Your task to perform on an android device: open the mobile data screen to see how much data has been used Image 0: 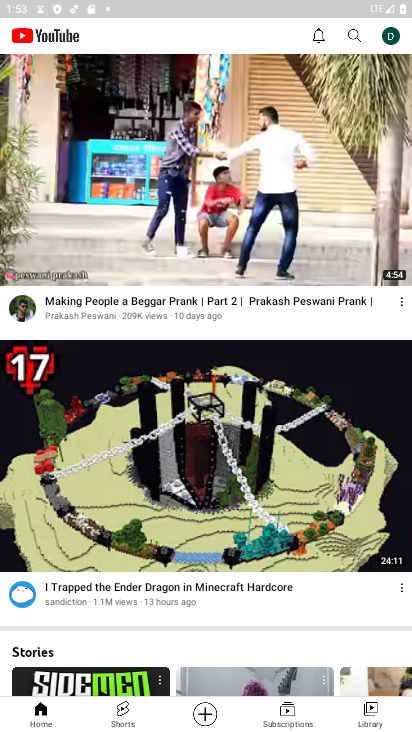
Step 0: press home button
Your task to perform on an android device: open the mobile data screen to see how much data has been used Image 1: 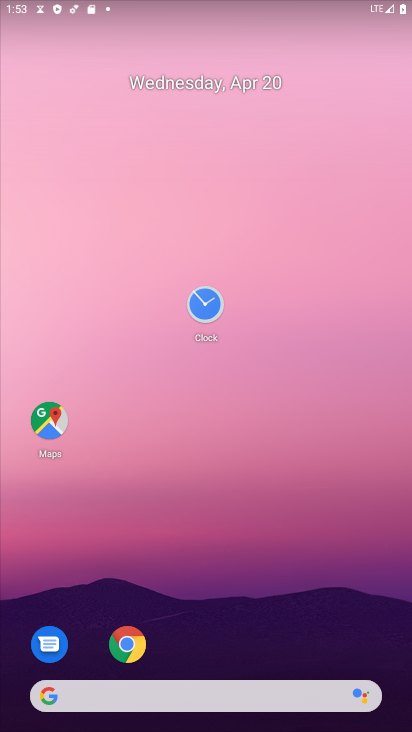
Step 1: drag from (313, 629) to (284, 9)
Your task to perform on an android device: open the mobile data screen to see how much data has been used Image 2: 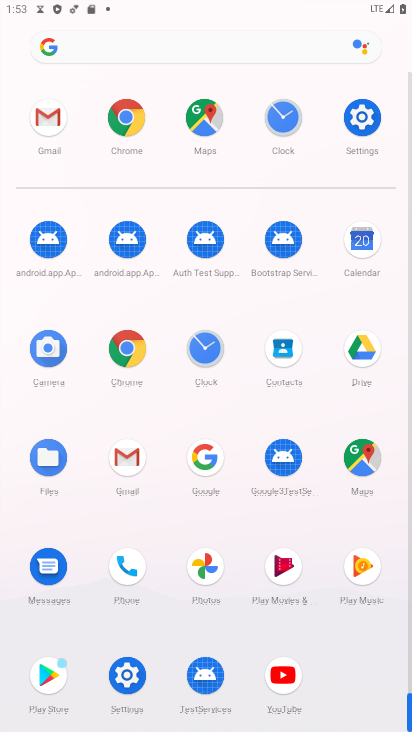
Step 2: click (136, 678)
Your task to perform on an android device: open the mobile data screen to see how much data has been used Image 3: 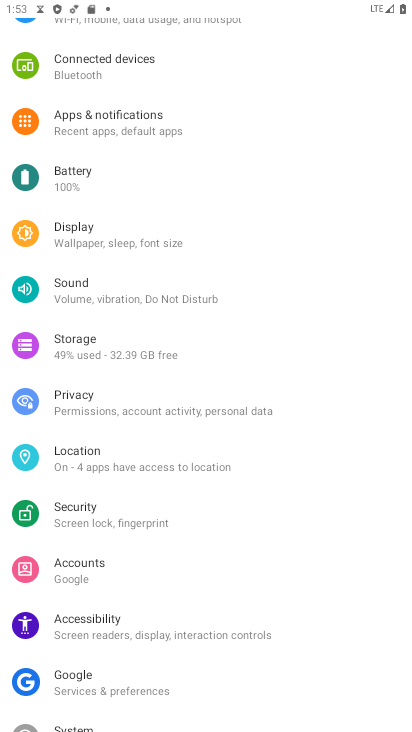
Step 3: drag from (209, 128) to (219, 518)
Your task to perform on an android device: open the mobile data screen to see how much data has been used Image 4: 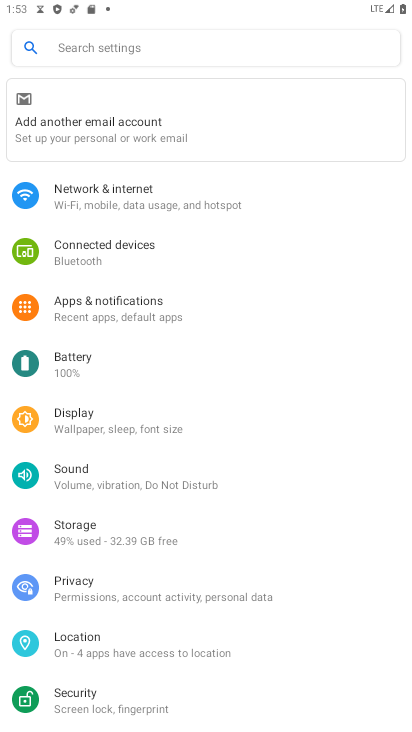
Step 4: click (167, 215)
Your task to perform on an android device: open the mobile data screen to see how much data has been used Image 5: 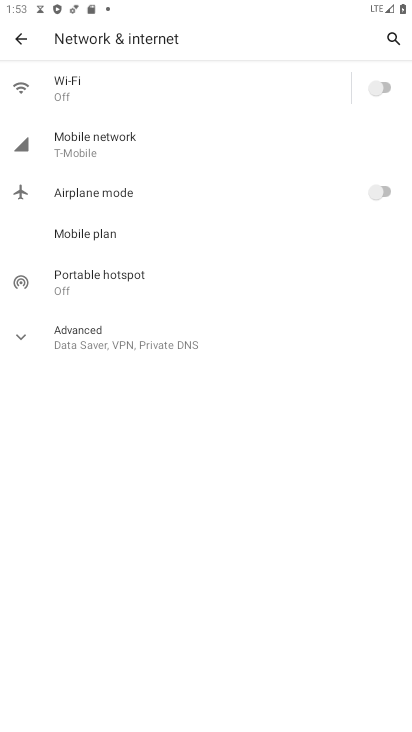
Step 5: click (163, 141)
Your task to perform on an android device: open the mobile data screen to see how much data has been used Image 6: 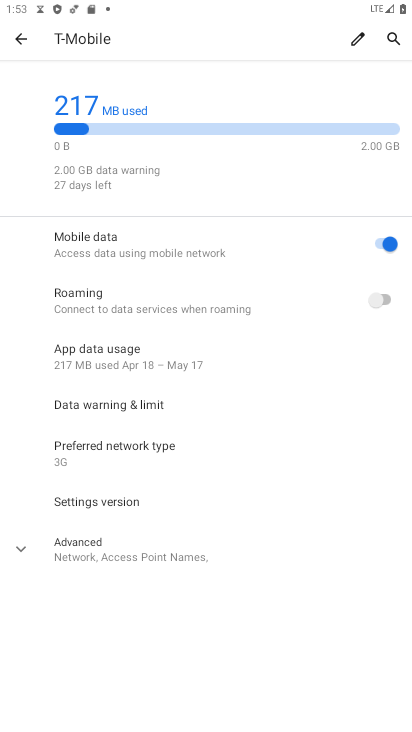
Step 6: click (119, 245)
Your task to perform on an android device: open the mobile data screen to see how much data has been used Image 7: 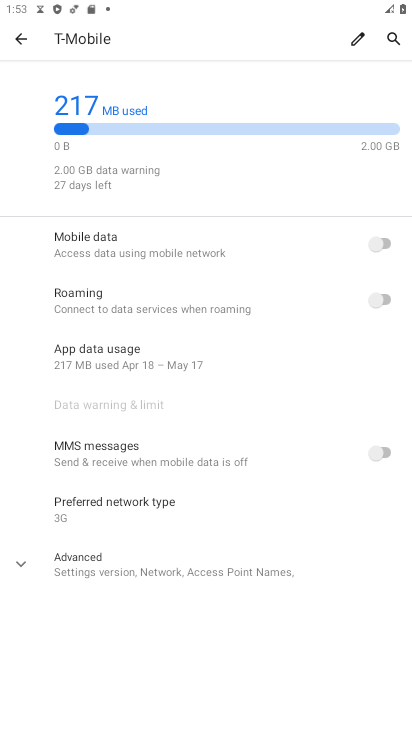
Step 7: click (125, 247)
Your task to perform on an android device: open the mobile data screen to see how much data has been used Image 8: 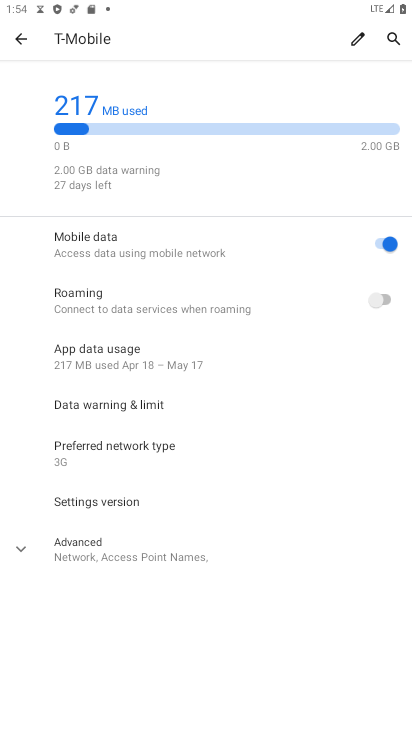
Step 8: click (152, 363)
Your task to perform on an android device: open the mobile data screen to see how much data has been used Image 9: 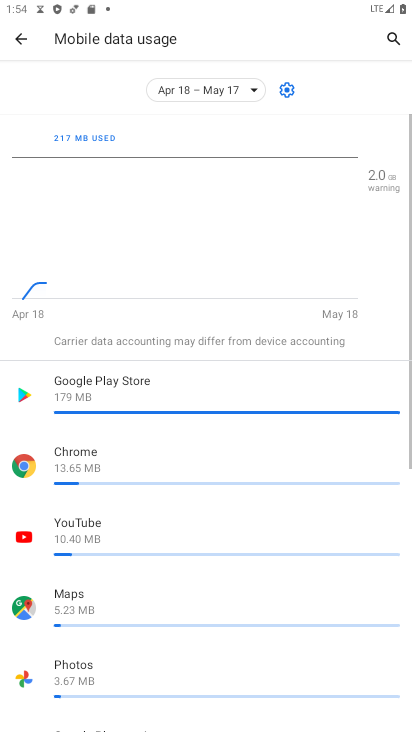
Step 9: task complete